Your task to perform on an android device: change the clock style Image 0: 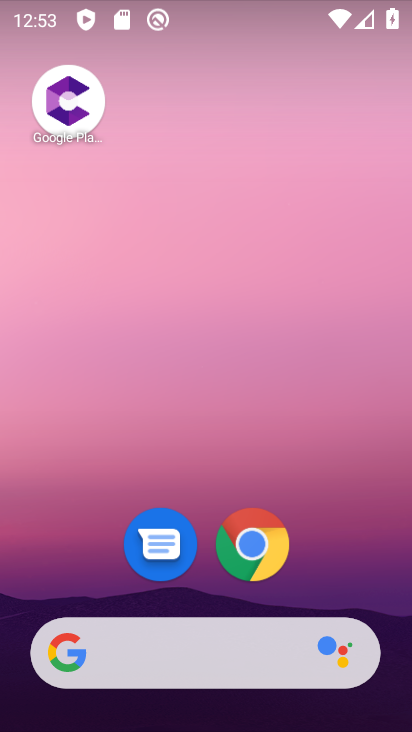
Step 0: drag from (93, 576) to (124, 164)
Your task to perform on an android device: change the clock style Image 1: 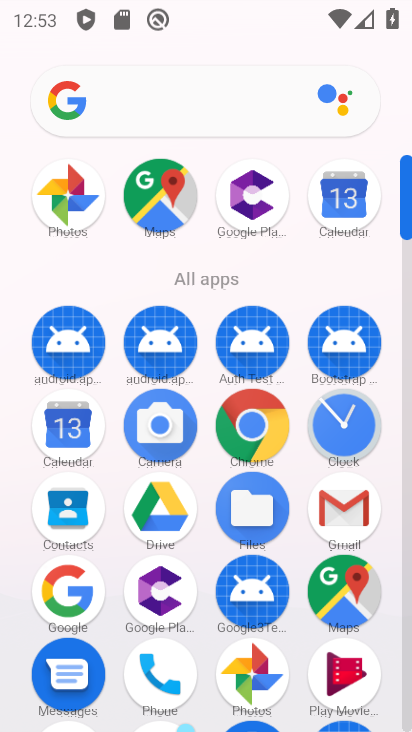
Step 1: click (340, 422)
Your task to perform on an android device: change the clock style Image 2: 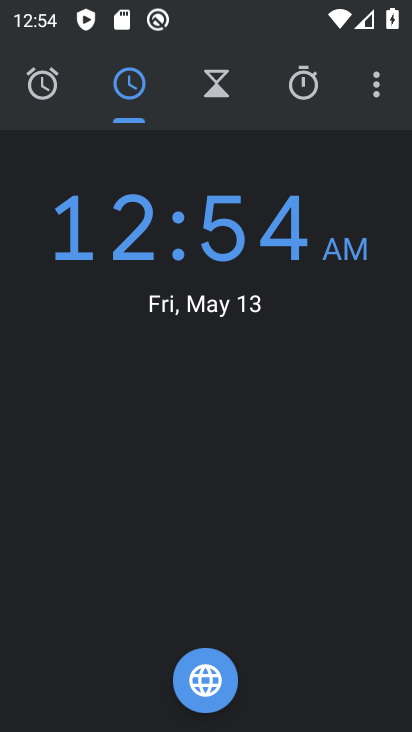
Step 2: click (376, 91)
Your task to perform on an android device: change the clock style Image 3: 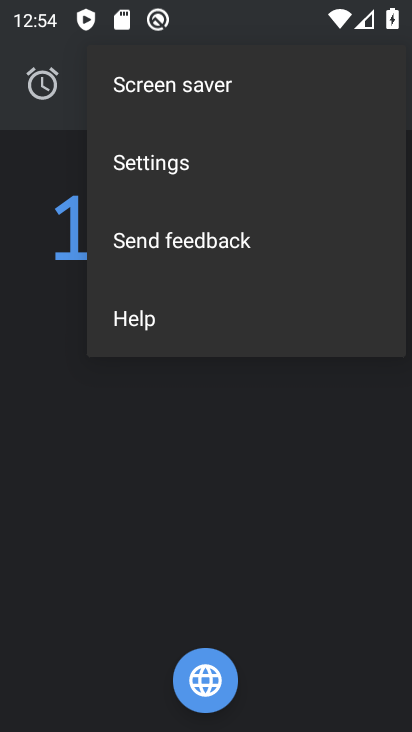
Step 3: click (138, 164)
Your task to perform on an android device: change the clock style Image 4: 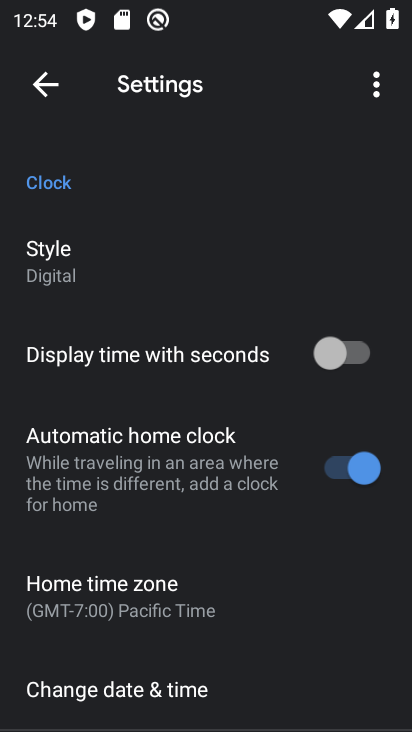
Step 4: click (63, 277)
Your task to perform on an android device: change the clock style Image 5: 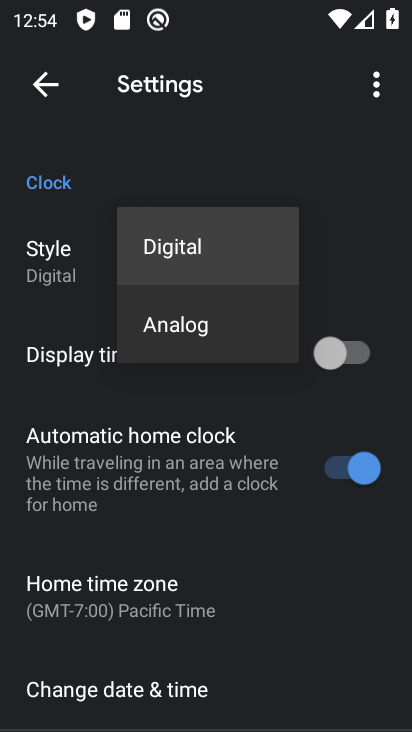
Step 5: click (156, 319)
Your task to perform on an android device: change the clock style Image 6: 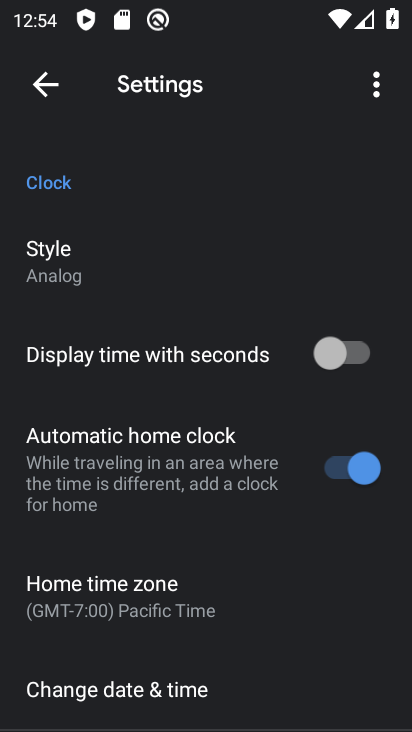
Step 6: task complete